Your task to perform on an android device: check google app version Image 0: 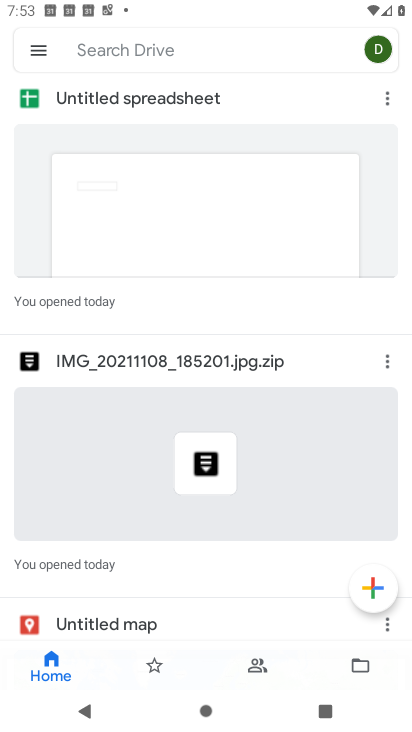
Step 0: press home button
Your task to perform on an android device: check google app version Image 1: 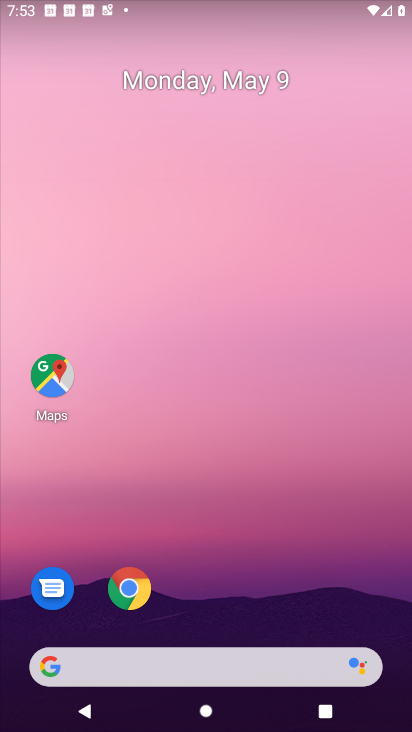
Step 1: drag from (164, 643) to (308, 63)
Your task to perform on an android device: check google app version Image 2: 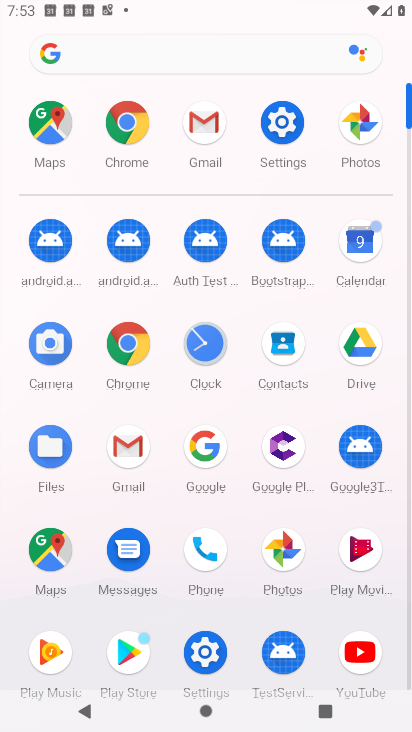
Step 2: click (212, 441)
Your task to perform on an android device: check google app version Image 3: 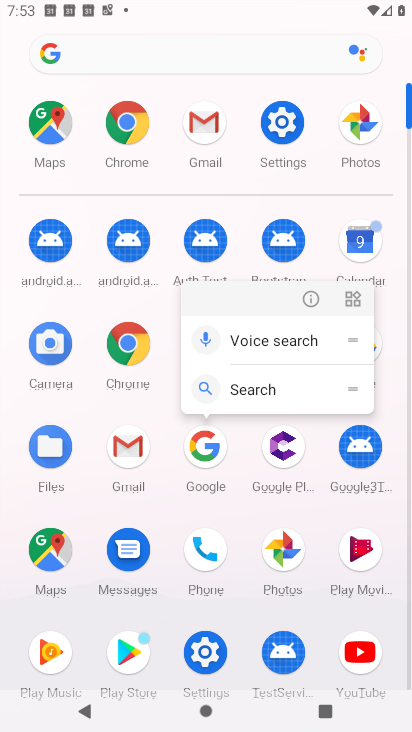
Step 3: click (314, 301)
Your task to perform on an android device: check google app version Image 4: 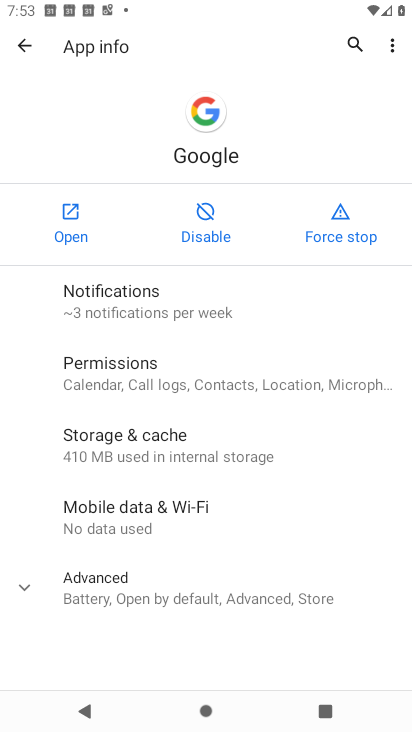
Step 4: drag from (138, 634) to (317, 136)
Your task to perform on an android device: check google app version Image 5: 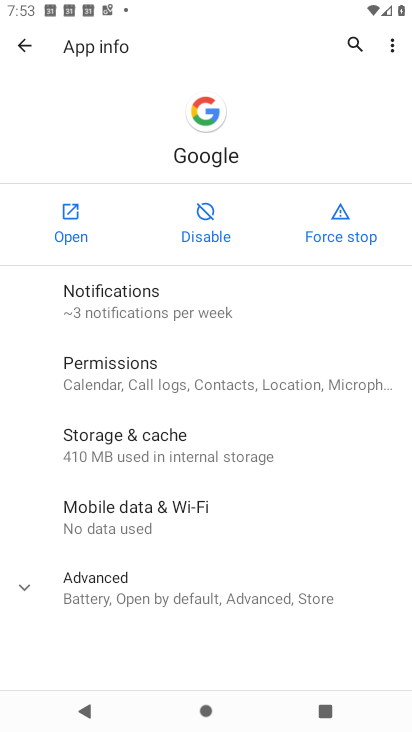
Step 5: click (106, 588)
Your task to perform on an android device: check google app version Image 6: 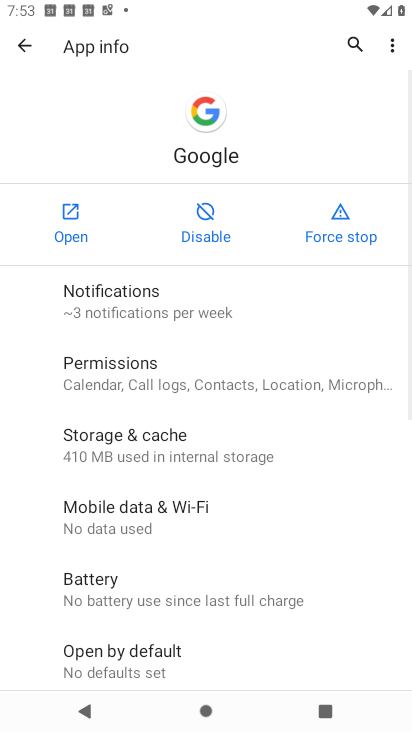
Step 6: task complete